Your task to perform on an android device: search for starred emails in the gmail app Image 0: 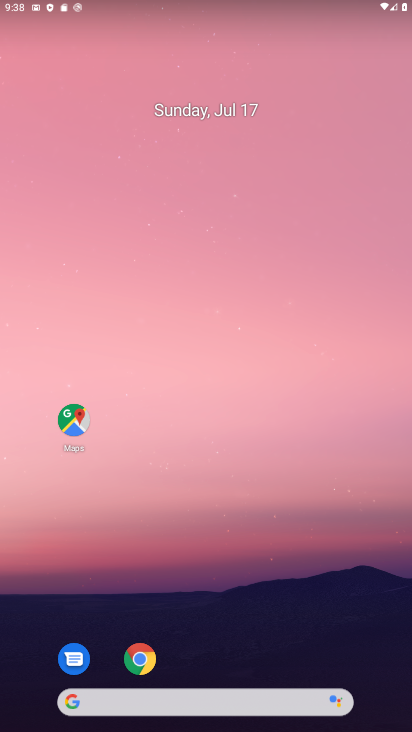
Step 0: drag from (229, 669) to (267, 195)
Your task to perform on an android device: search for starred emails in the gmail app Image 1: 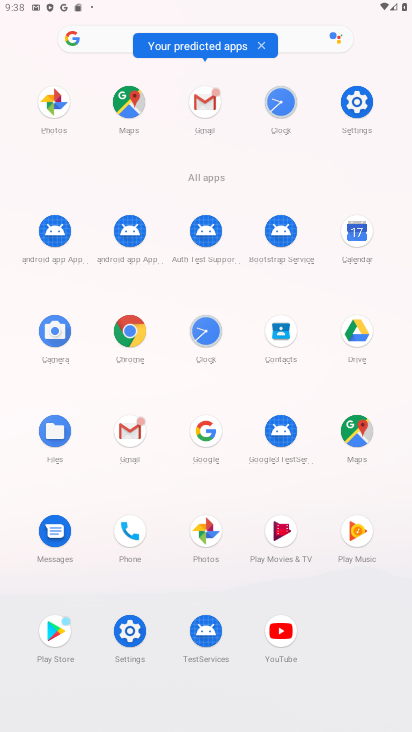
Step 1: click (119, 429)
Your task to perform on an android device: search for starred emails in the gmail app Image 2: 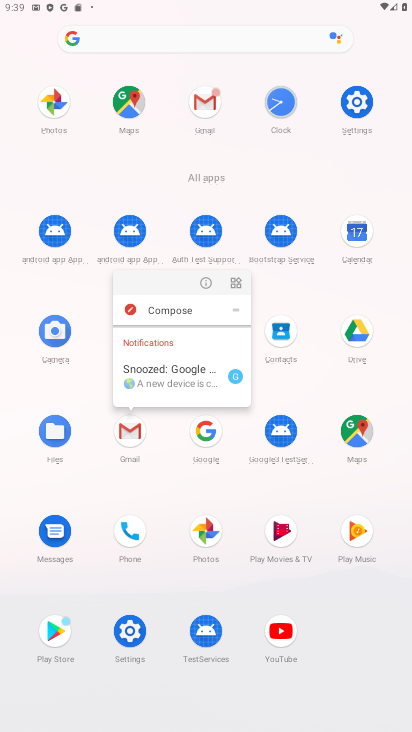
Step 2: click (132, 431)
Your task to perform on an android device: search for starred emails in the gmail app Image 3: 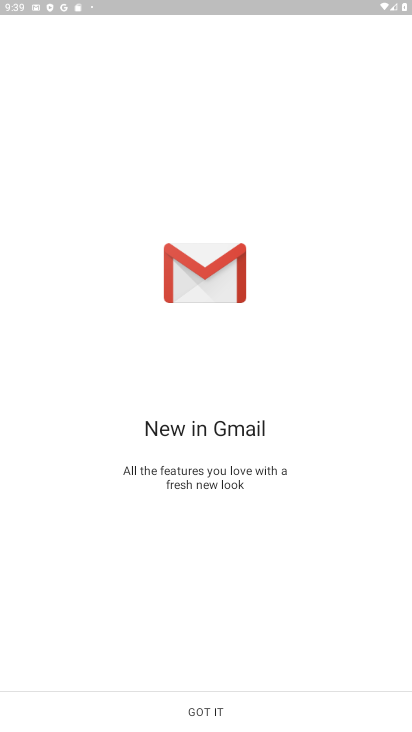
Step 3: click (198, 713)
Your task to perform on an android device: search for starred emails in the gmail app Image 4: 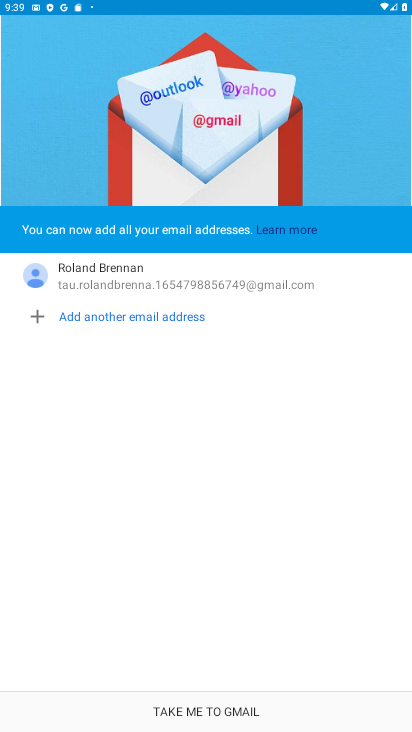
Step 4: click (198, 713)
Your task to perform on an android device: search for starred emails in the gmail app Image 5: 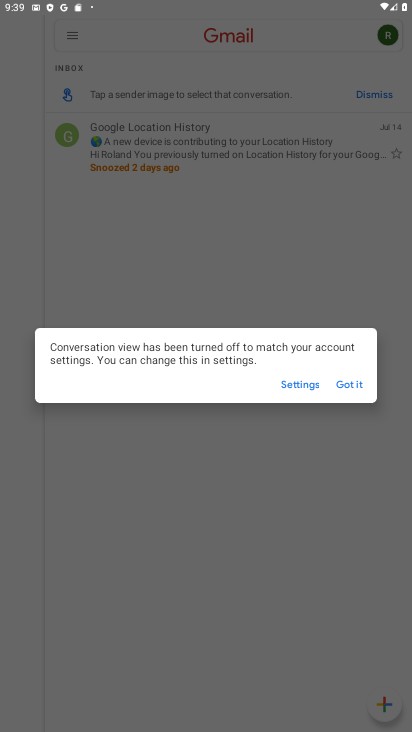
Step 5: click (349, 387)
Your task to perform on an android device: search for starred emails in the gmail app Image 6: 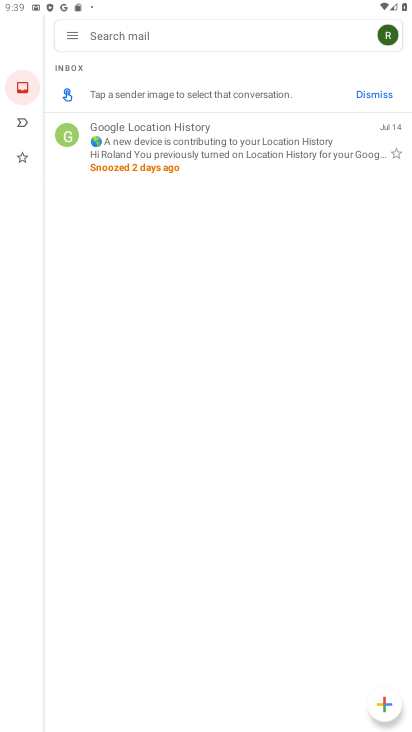
Step 6: click (72, 39)
Your task to perform on an android device: search for starred emails in the gmail app Image 7: 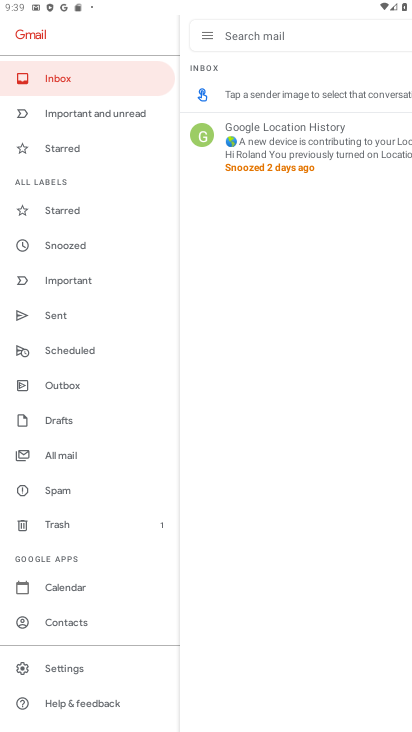
Step 7: click (108, 216)
Your task to perform on an android device: search for starred emails in the gmail app Image 8: 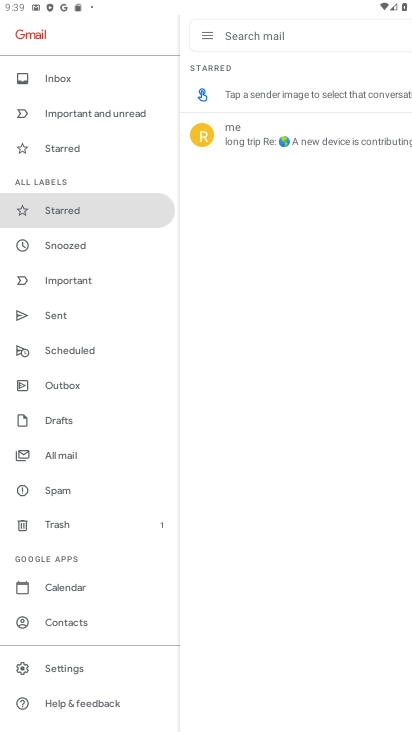
Step 8: task complete